Your task to perform on an android device: open a new tab in the chrome app Image 0: 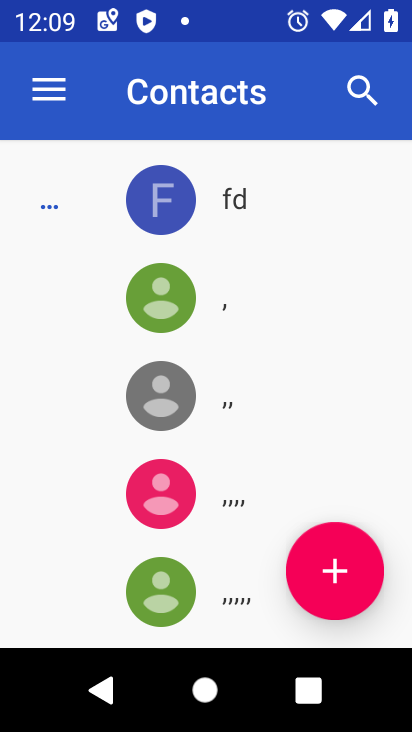
Step 0: press home button
Your task to perform on an android device: open a new tab in the chrome app Image 1: 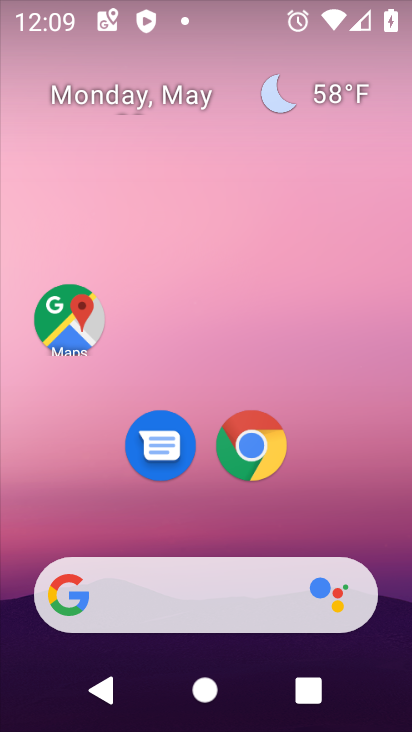
Step 1: click (249, 439)
Your task to perform on an android device: open a new tab in the chrome app Image 2: 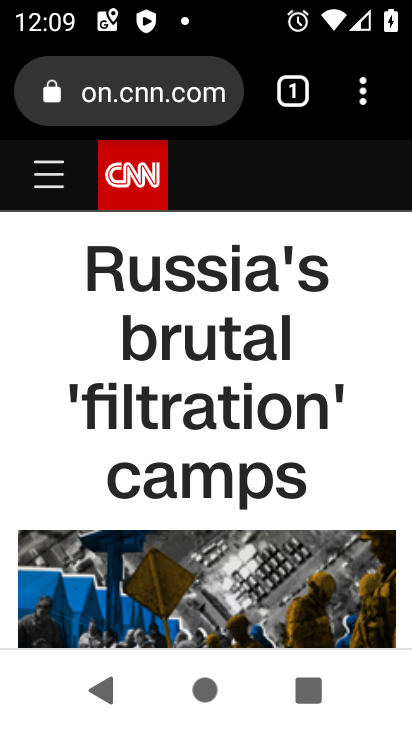
Step 2: click (289, 84)
Your task to perform on an android device: open a new tab in the chrome app Image 3: 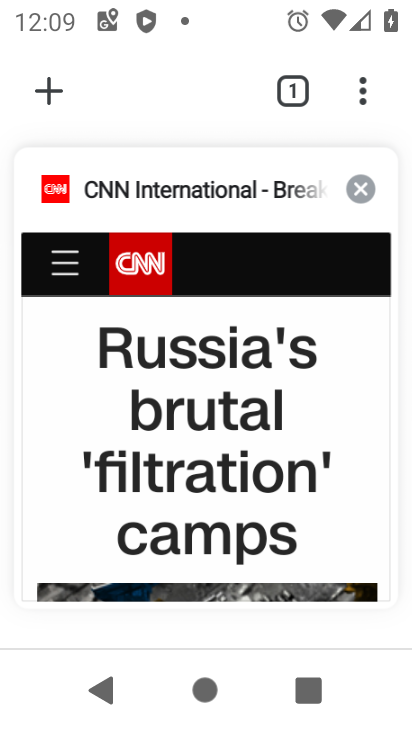
Step 3: click (47, 89)
Your task to perform on an android device: open a new tab in the chrome app Image 4: 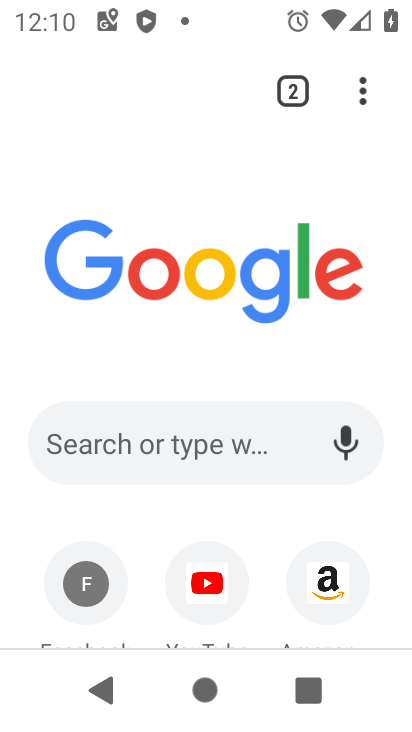
Step 4: task complete